Your task to perform on an android device: change the upload size in google photos Image 0: 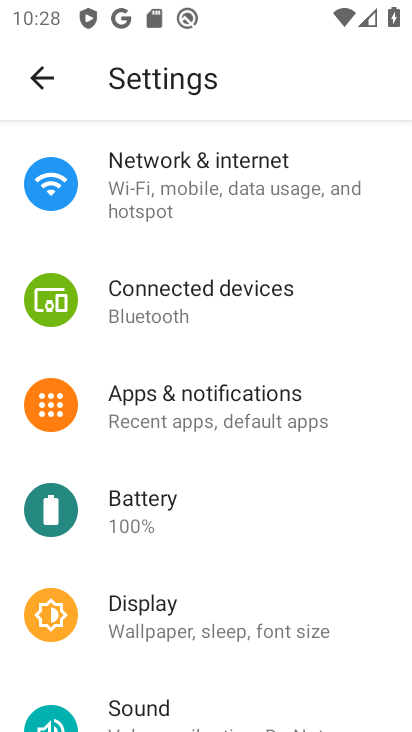
Step 0: press back button
Your task to perform on an android device: change the upload size in google photos Image 1: 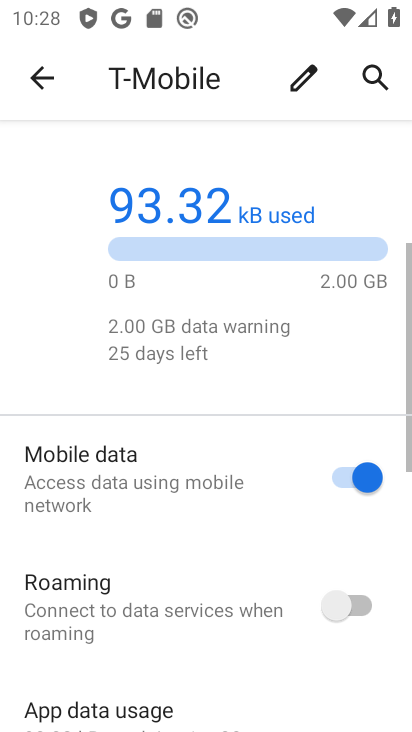
Step 1: click (36, 76)
Your task to perform on an android device: change the upload size in google photos Image 2: 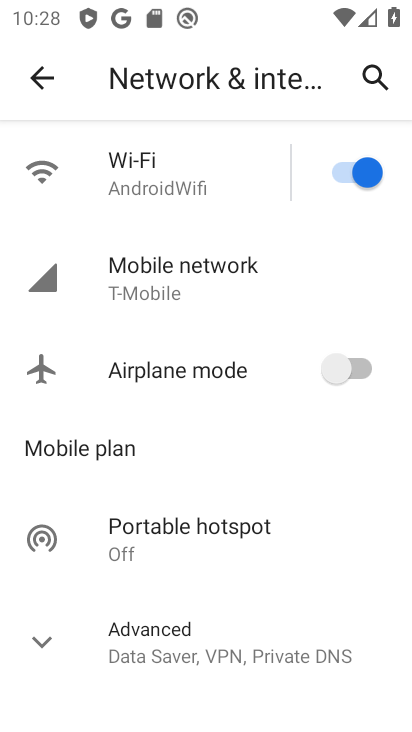
Step 2: press home button
Your task to perform on an android device: change the upload size in google photos Image 3: 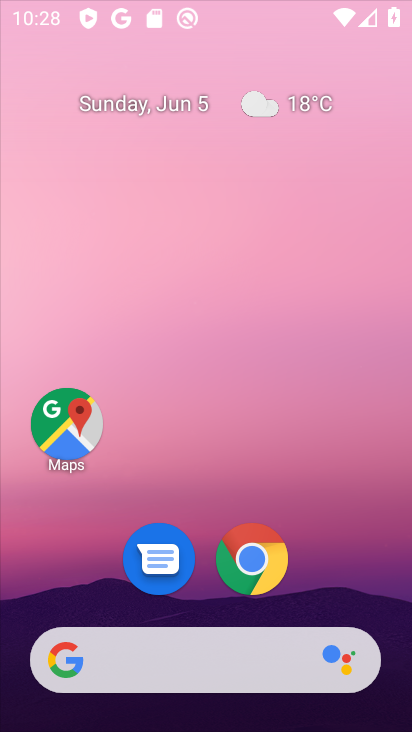
Step 3: click (30, 81)
Your task to perform on an android device: change the upload size in google photos Image 4: 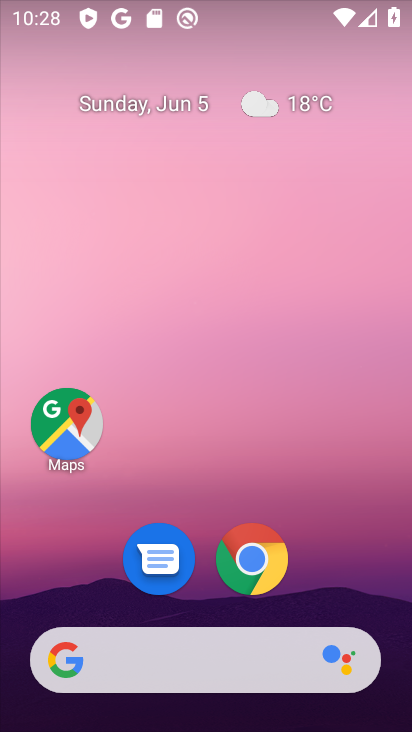
Step 4: click (30, 81)
Your task to perform on an android device: change the upload size in google photos Image 5: 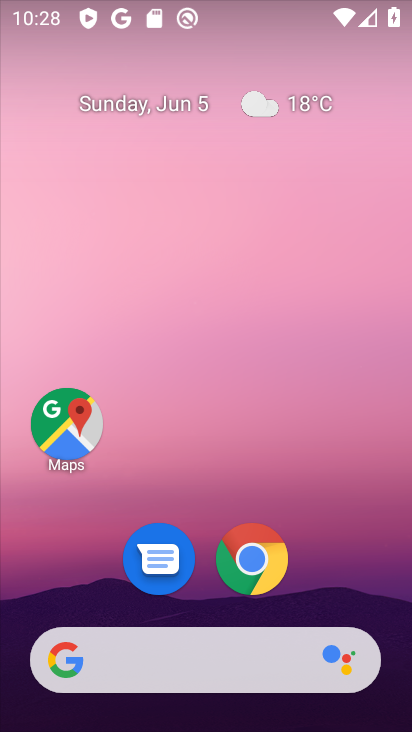
Step 5: drag from (245, 706) to (117, 39)
Your task to perform on an android device: change the upload size in google photos Image 6: 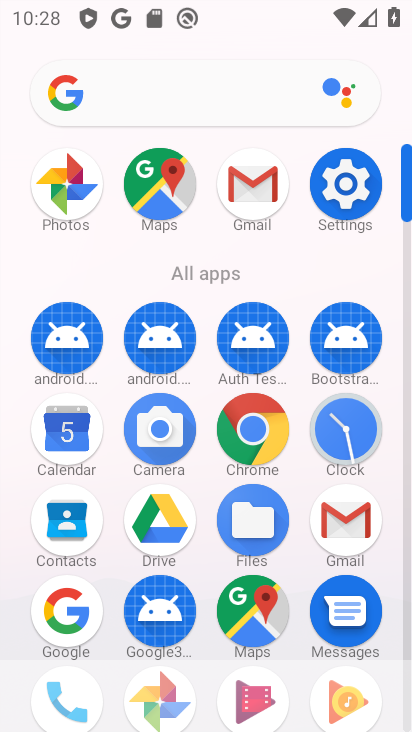
Step 6: click (72, 186)
Your task to perform on an android device: change the upload size in google photos Image 7: 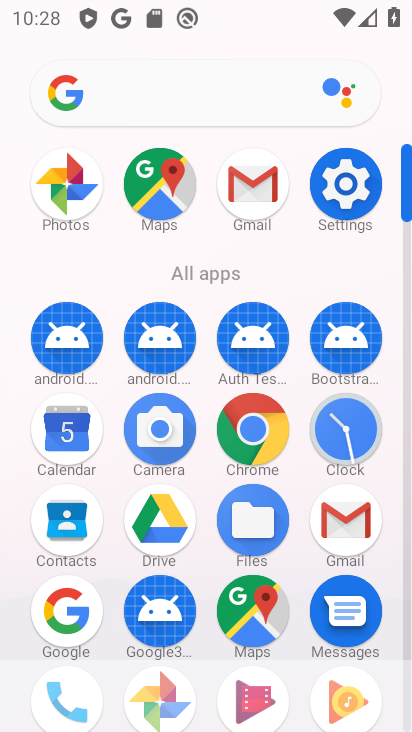
Step 7: click (65, 197)
Your task to perform on an android device: change the upload size in google photos Image 8: 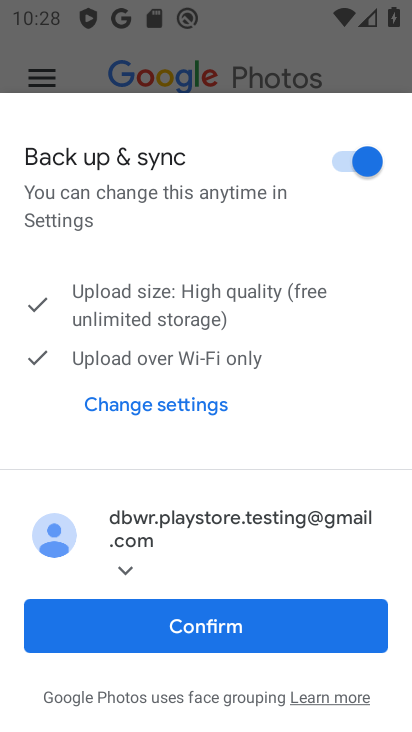
Step 8: click (218, 630)
Your task to perform on an android device: change the upload size in google photos Image 9: 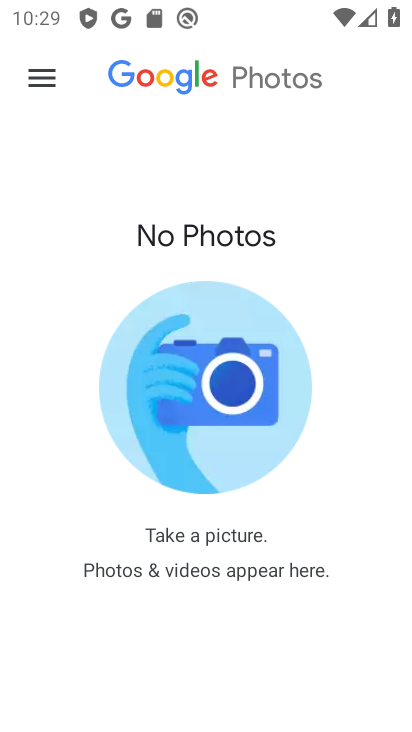
Step 9: click (43, 81)
Your task to perform on an android device: change the upload size in google photos Image 10: 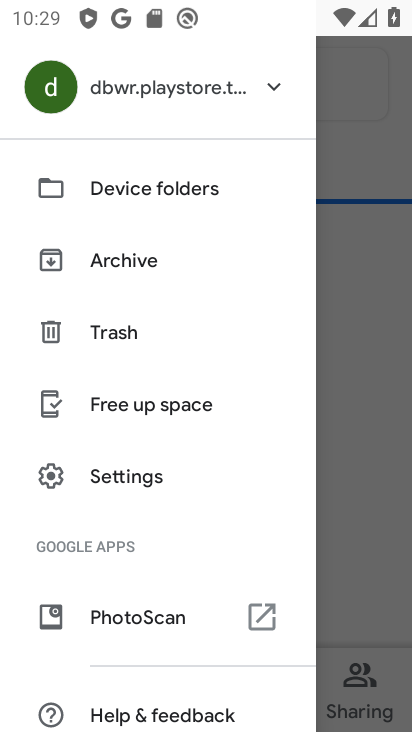
Step 10: click (125, 480)
Your task to perform on an android device: change the upload size in google photos Image 11: 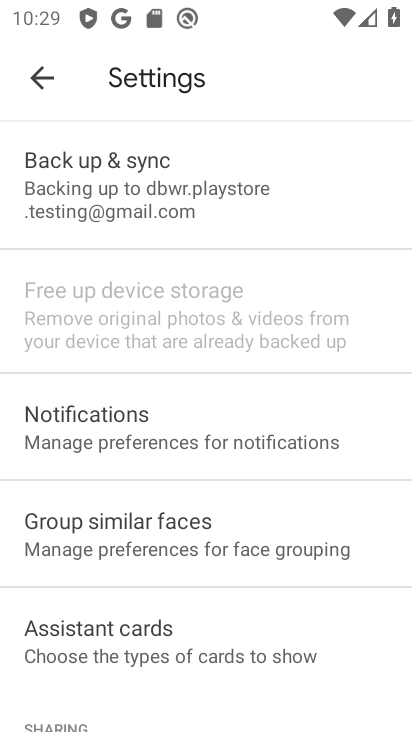
Step 11: click (97, 187)
Your task to perform on an android device: change the upload size in google photos Image 12: 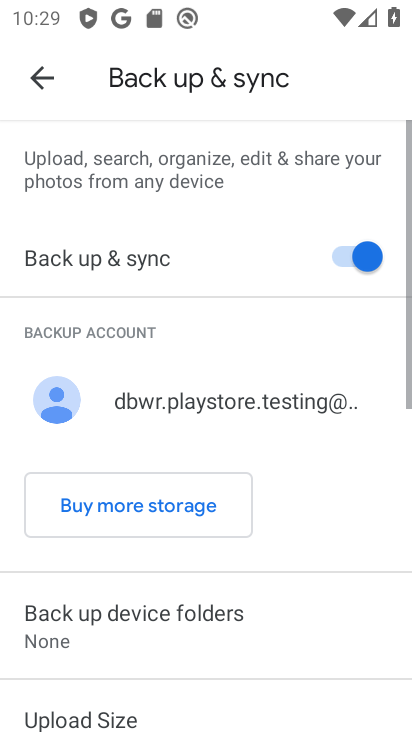
Step 12: drag from (135, 604) to (132, 197)
Your task to perform on an android device: change the upload size in google photos Image 13: 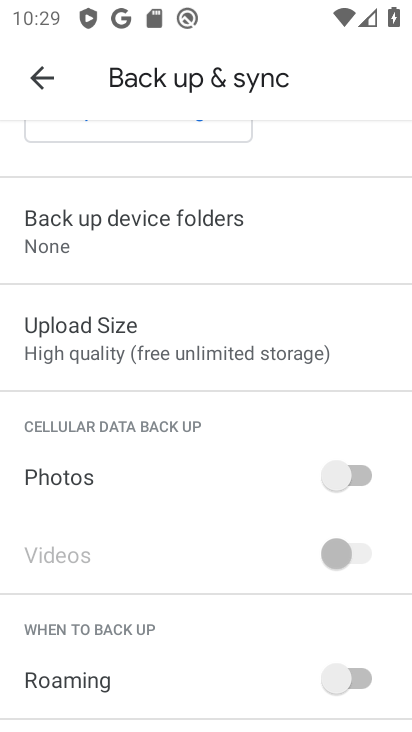
Step 13: click (58, 346)
Your task to perform on an android device: change the upload size in google photos Image 14: 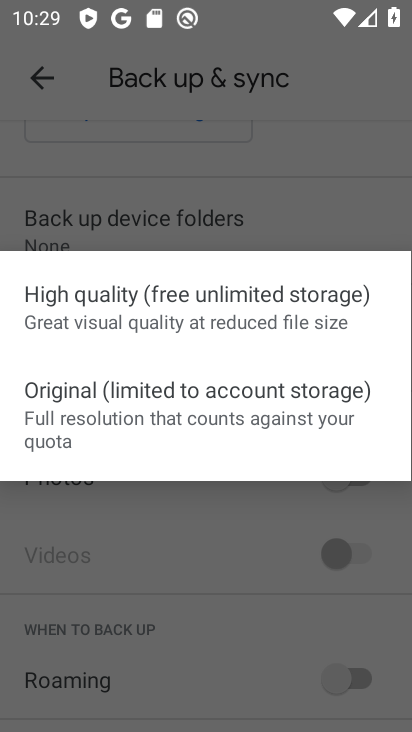
Step 14: click (89, 399)
Your task to perform on an android device: change the upload size in google photos Image 15: 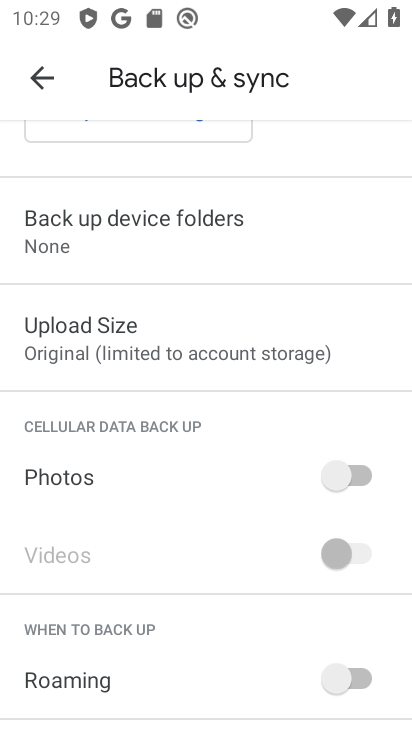
Step 15: task complete